Your task to perform on an android device: open a bookmark in the chrome app Image 0: 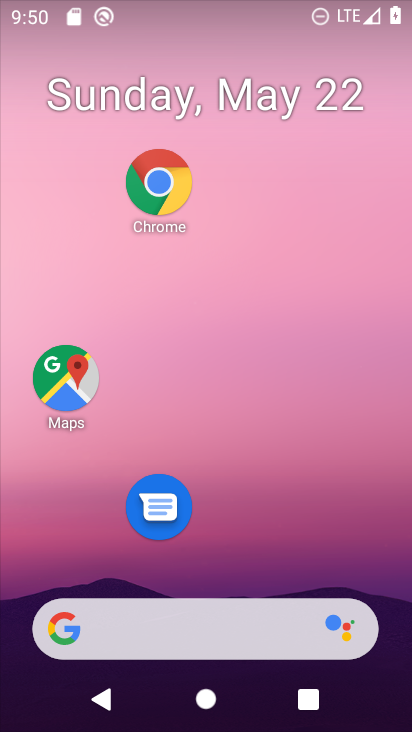
Step 0: click (164, 201)
Your task to perform on an android device: open a bookmark in the chrome app Image 1: 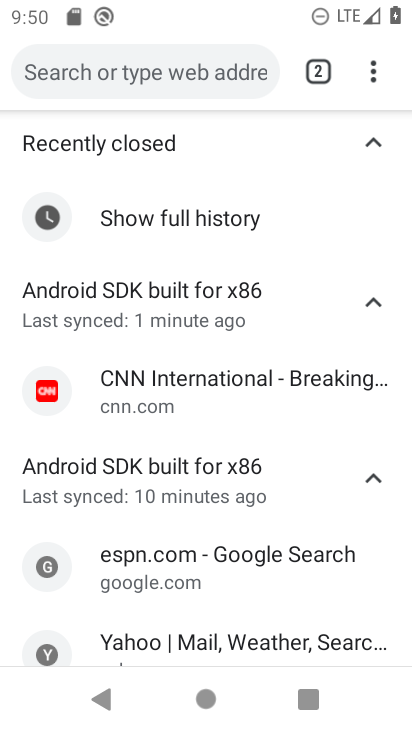
Step 1: click (373, 75)
Your task to perform on an android device: open a bookmark in the chrome app Image 2: 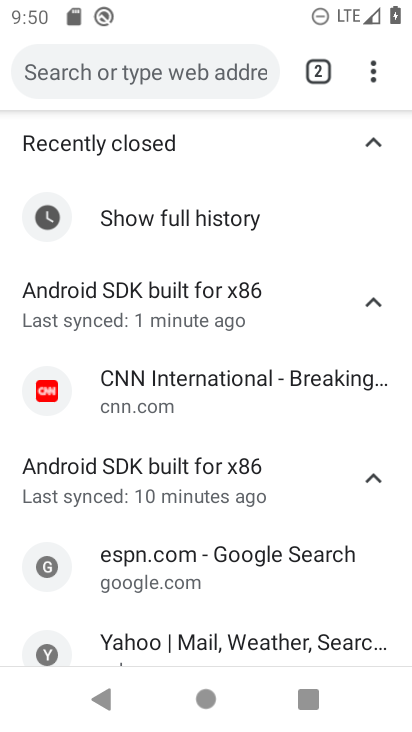
Step 2: click (372, 62)
Your task to perform on an android device: open a bookmark in the chrome app Image 3: 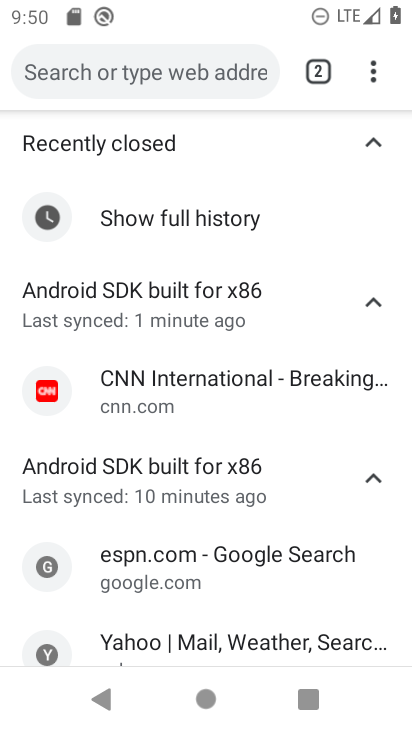
Step 3: click (372, 61)
Your task to perform on an android device: open a bookmark in the chrome app Image 4: 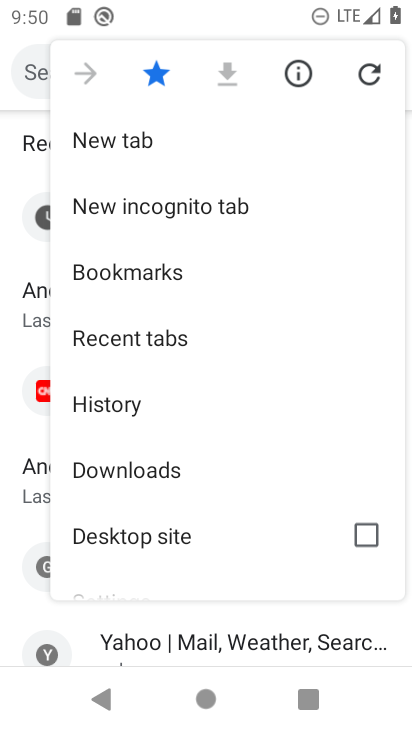
Step 4: click (161, 276)
Your task to perform on an android device: open a bookmark in the chrome app Image 5: 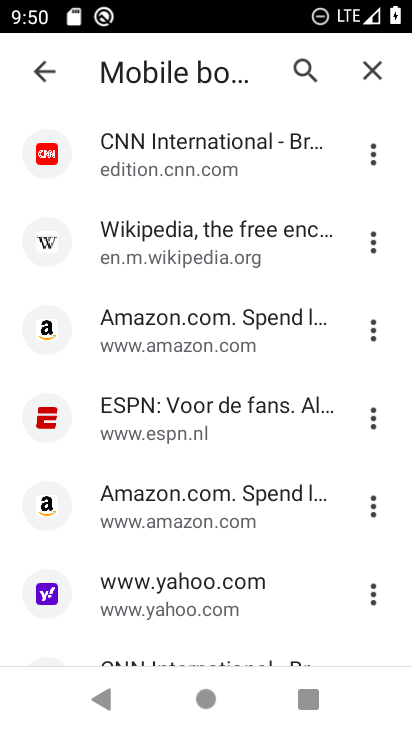
Step 5: click (214, 300)
Your task to perform on an android device: open a bookmark in the chrome app Image 6: 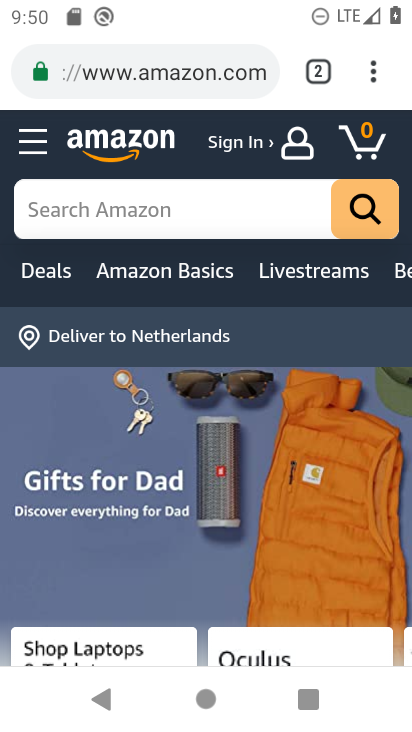
Step 6: task complete